Your task to perform on an android device: Open the web browser Image 0: 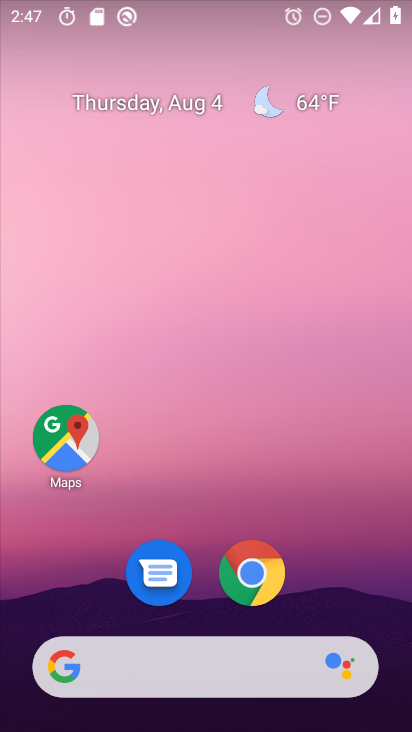
Step 0: drag from (353, 540) to (329, 143)
Your task to perform on an android device: Open the web browser Image 1: 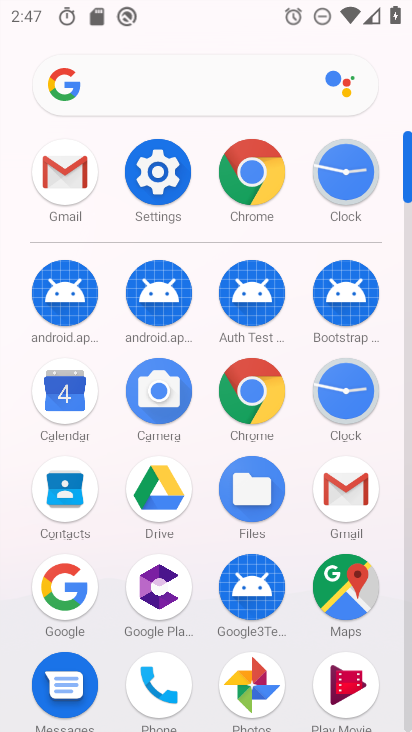
Step 1: click (250, 389)
Your task to perform on an android device: Open the web browser Image 2: 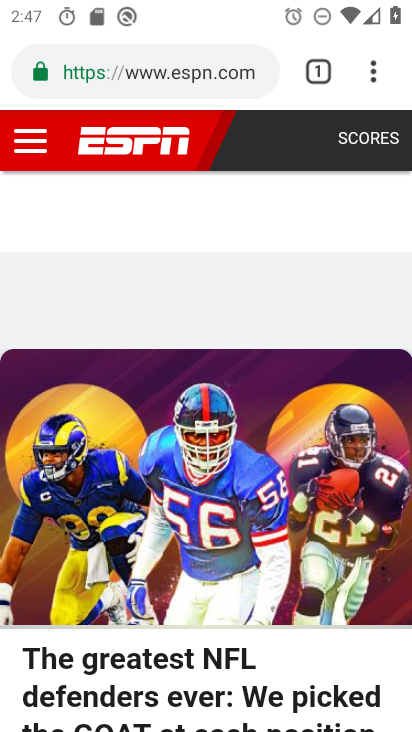
Step 2: task complete